Your task to perform on an android device: Go to CNN.com Image 0: 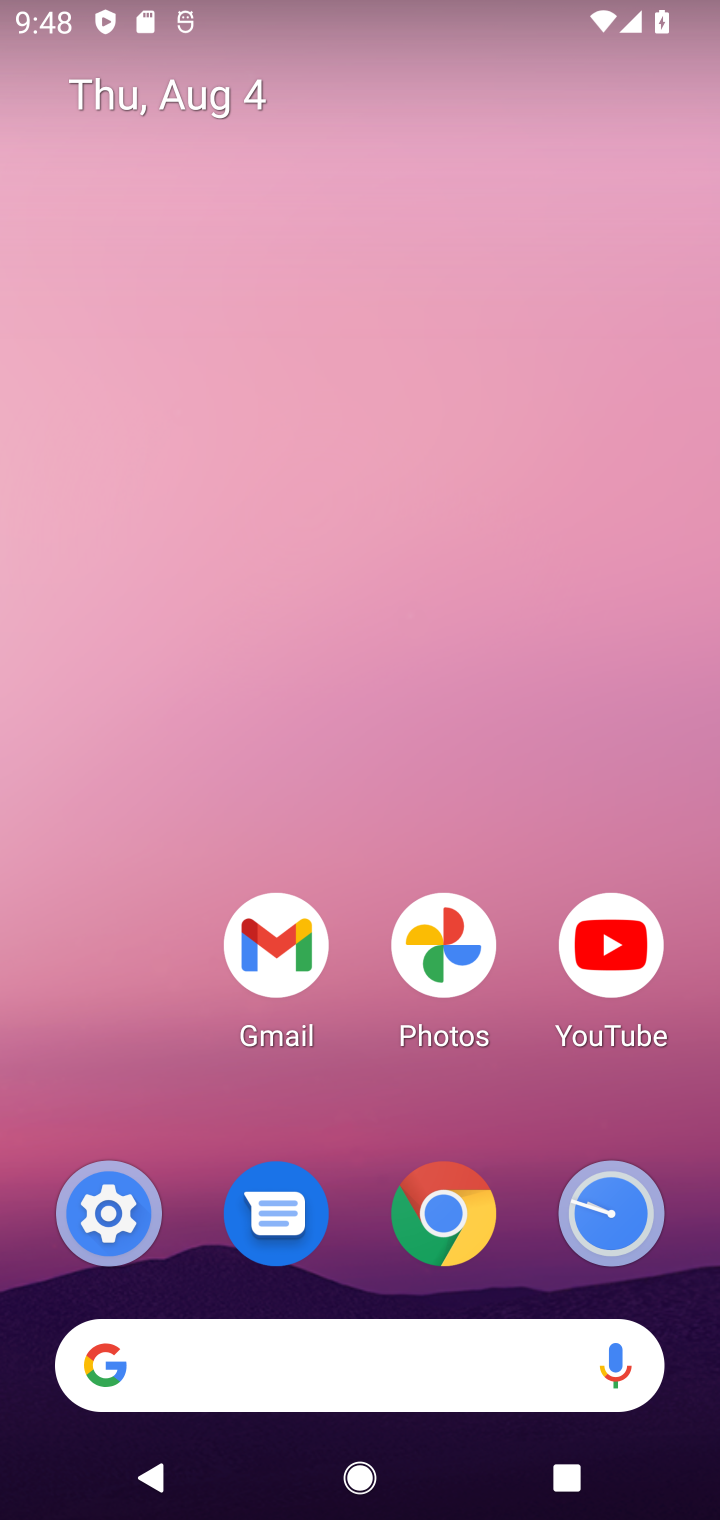
Step 0: click (430, 1219)
Your task to perform on an android device: Go to CNN.com Image 1: 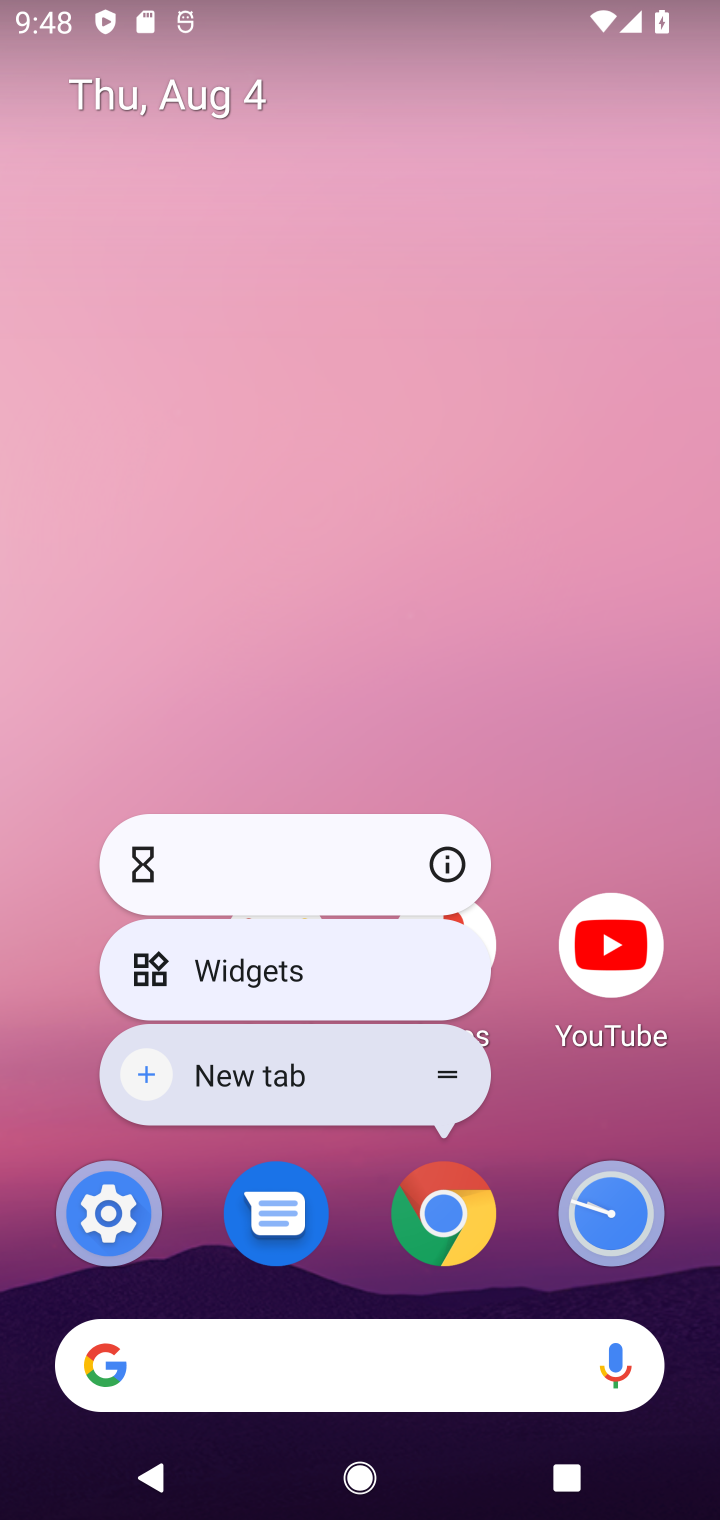
Step 1: click (433, 1225)
Your task to perform on an android device: Go to CNN.com Image 2: 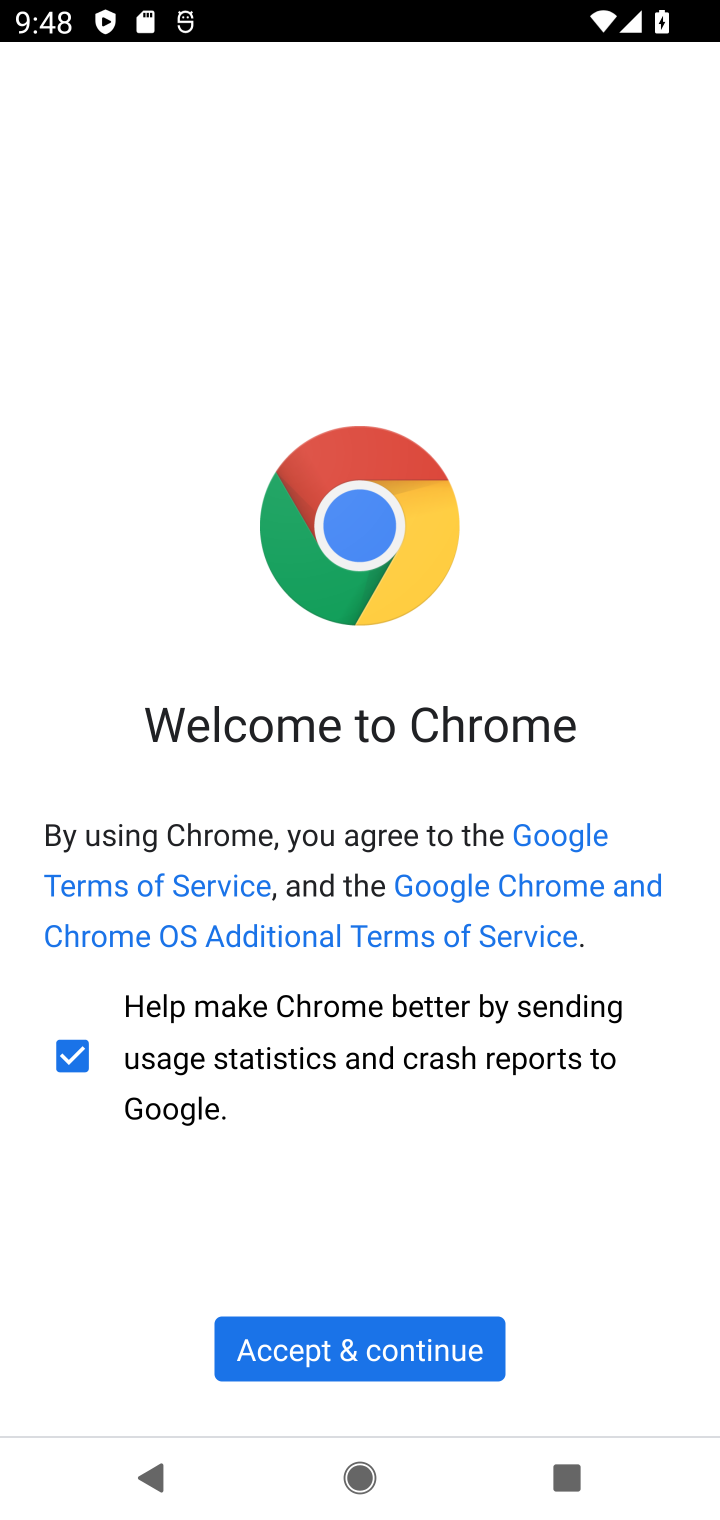
Step 2: click (372, 1347)
Your task to perform on an android device: Go to CNN.com Image 3: 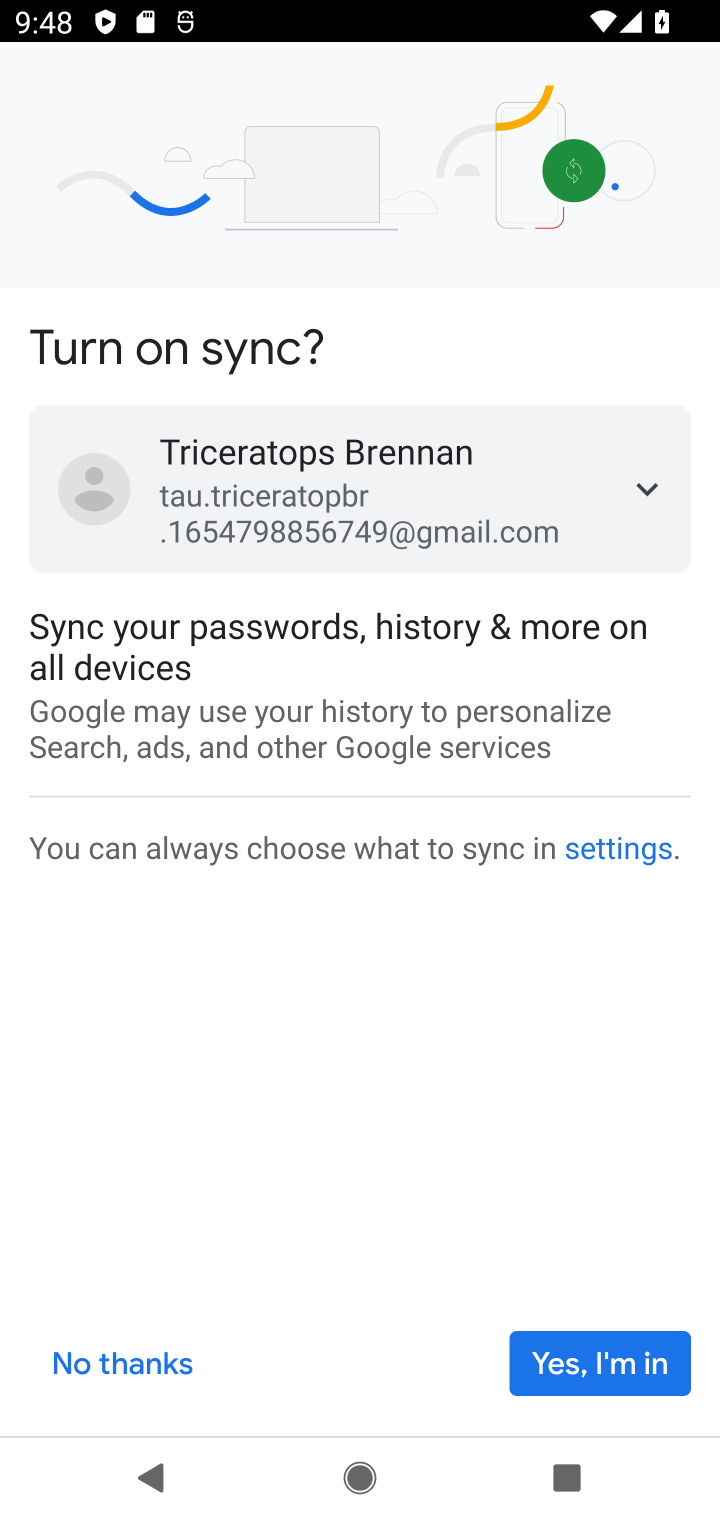
Step 3: click (591, 1368)
Your task to perform on an android device: Go to CNN.com Image 4: 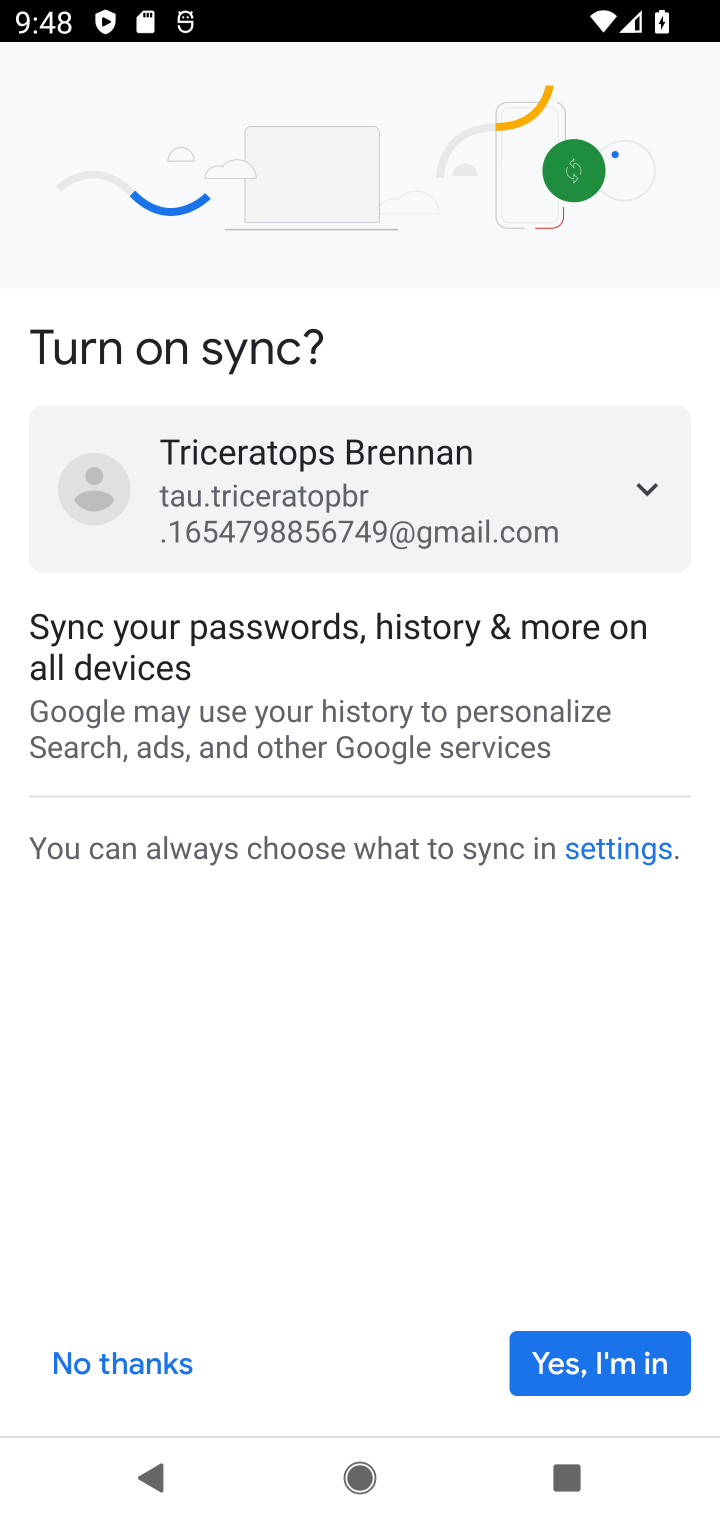
Step 4: click (591, 1368)
Your task to perform on an android device: Go to CNN.com Image 5: 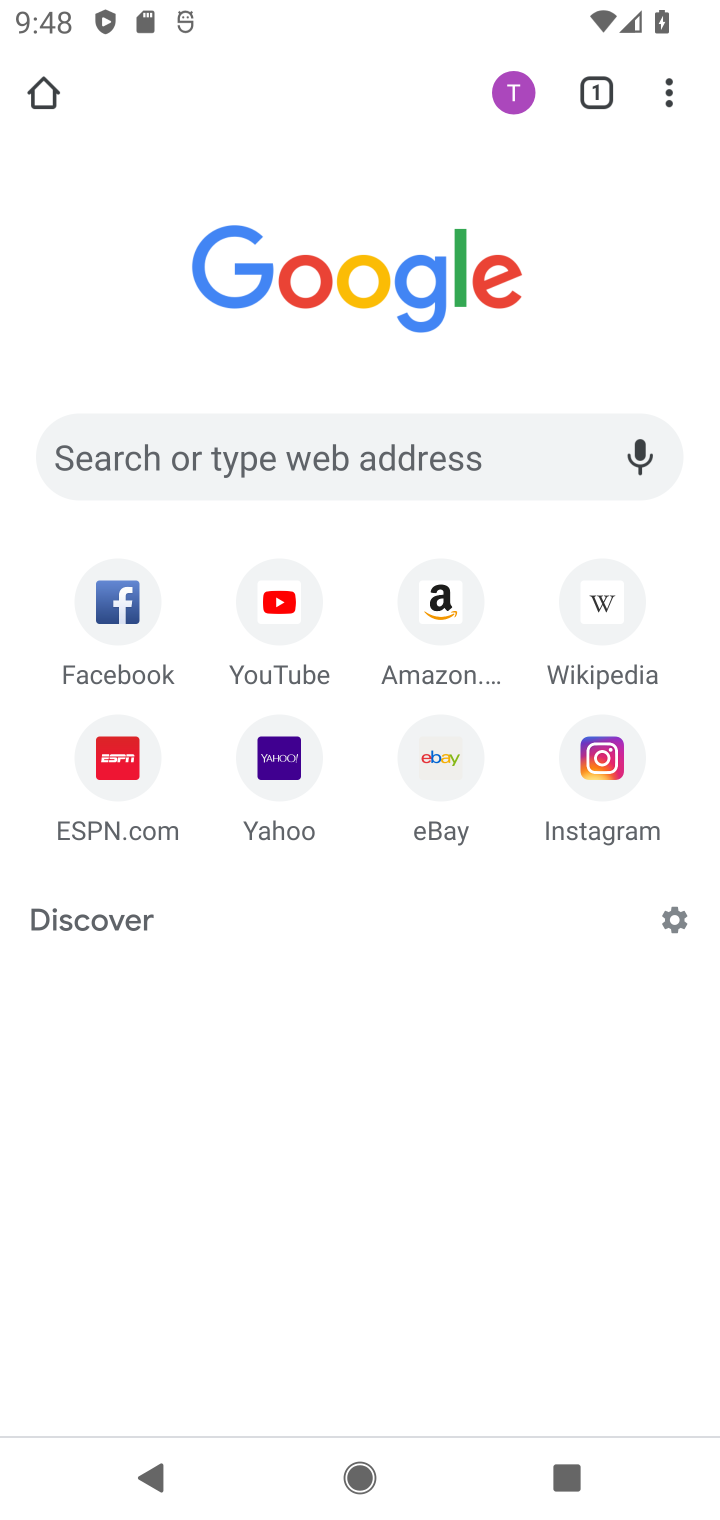
Step 5: click (433, 450)
Your task to perform on an android device: Go to CNN.com Image 6: 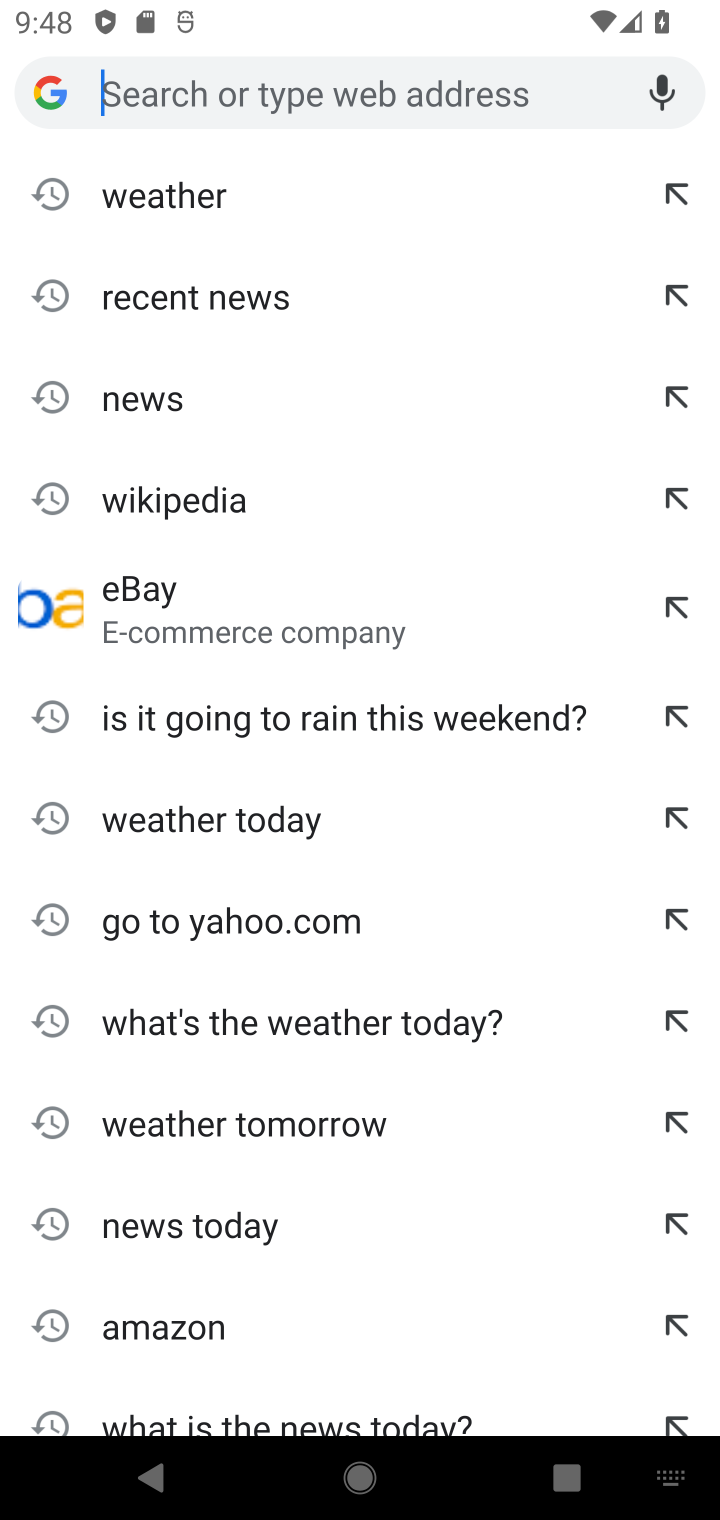
Step 6: type "CNN.com"
Your task to perform on an android device: Go to CNN.com Image 7: 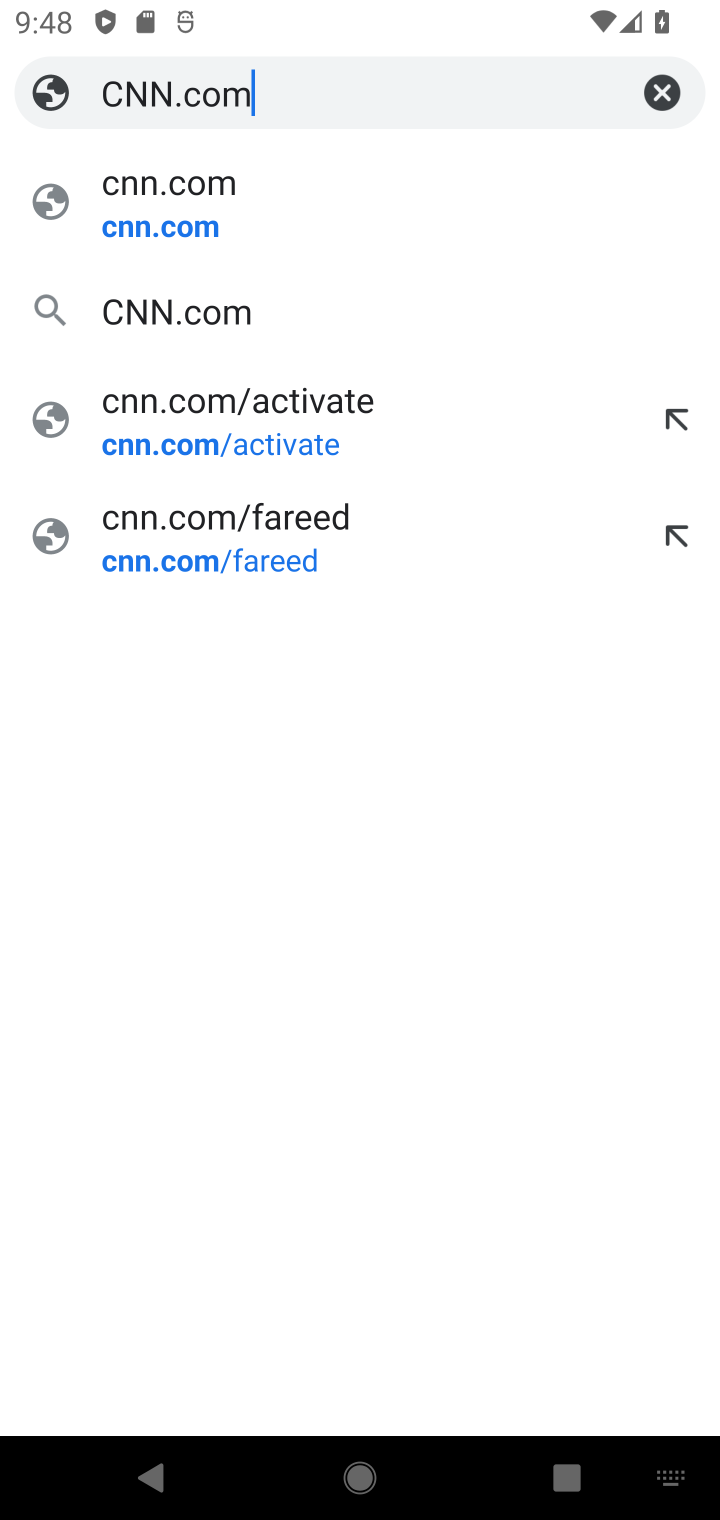
Step 7: click (249, 227)
Your task to perform on an android device: Go to CNN.com Image 8: 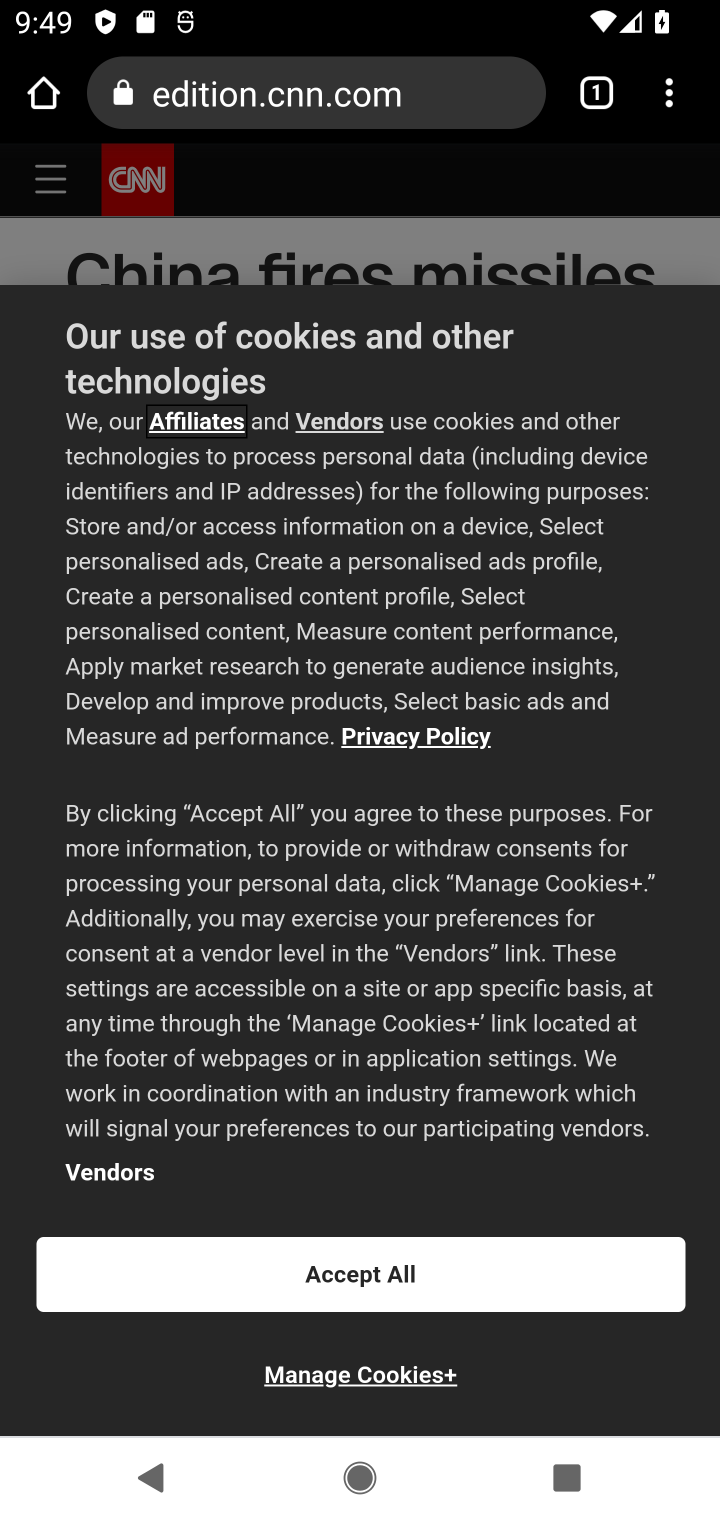
Step 8: task complete